Your task to perform on an android device: choose inbox layout in the gmail app Image 0: 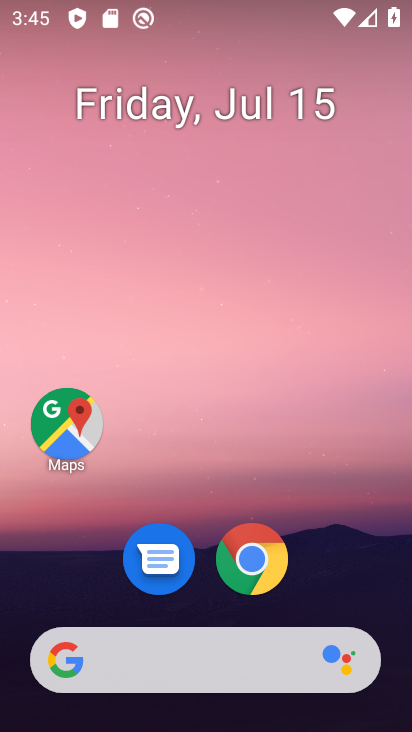
Step 0: click (202, 90)
Your task to perform on an android device: choose inbox layout in the gmail app Image 1: 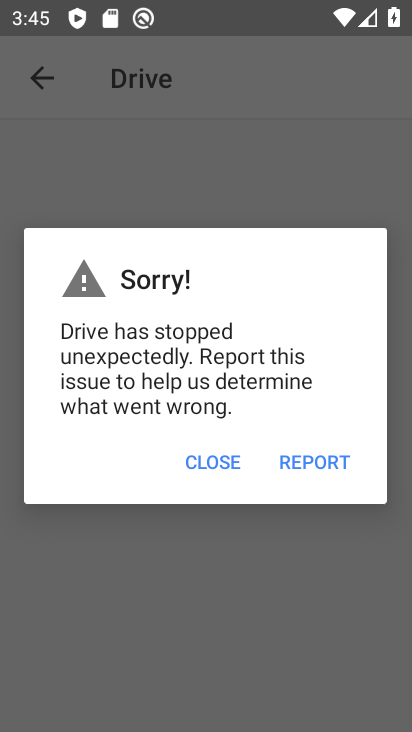
Step 1: click (210, 458)
Your task to perform on an android device: choose inbox layout in the gmail app Image 2: 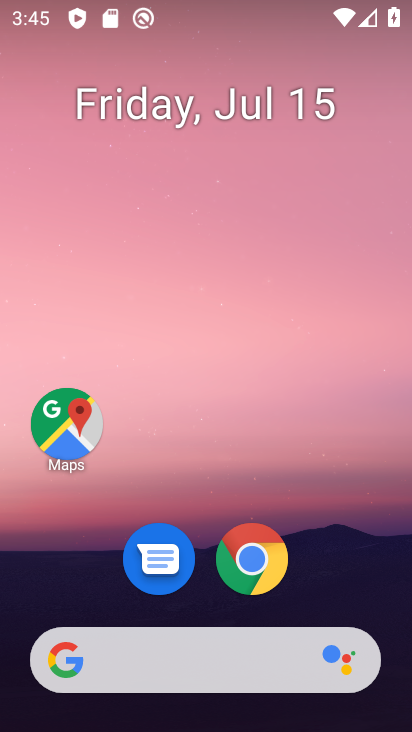
Step 2: drag from (91, 594) to (139, 52)
Your task to perform on an android device: choose inbox layout in the gmail app Image 3: 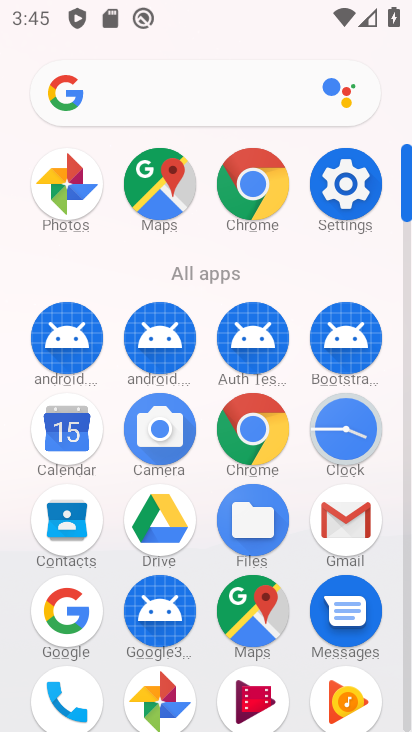
Step 3: click (334, 511)
Your task to perform on an android device: choose inbox layout in the gmail app Image 4: 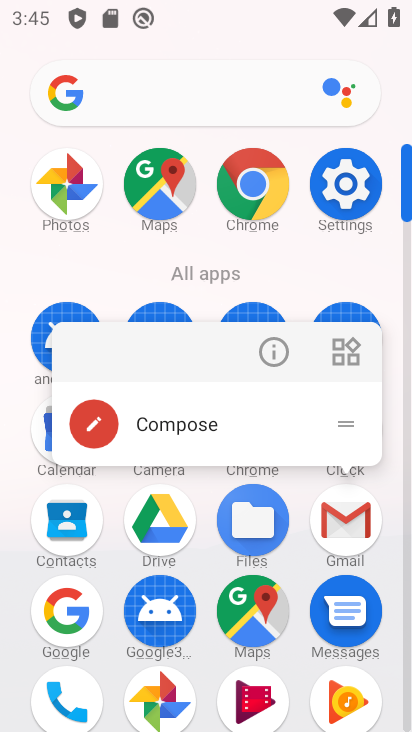
Step 4: click (334, 515)
Your task to perform on an android device: choose inbox layout in the gmail app Image 5: 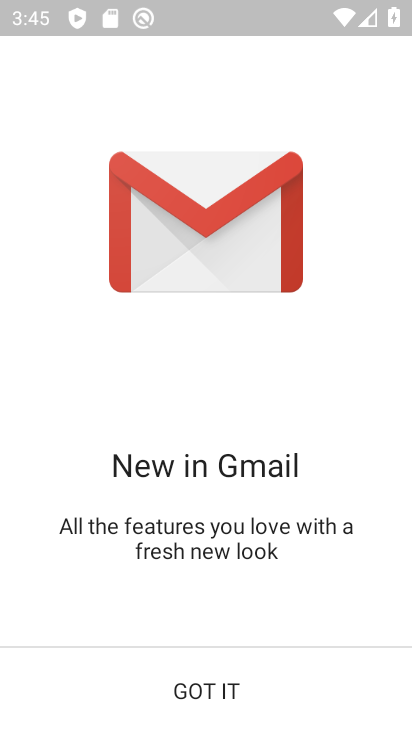
Step 5: click (209, 687)
Your task to perform on an android device: choose inbox layout in the gmail app Image 6: 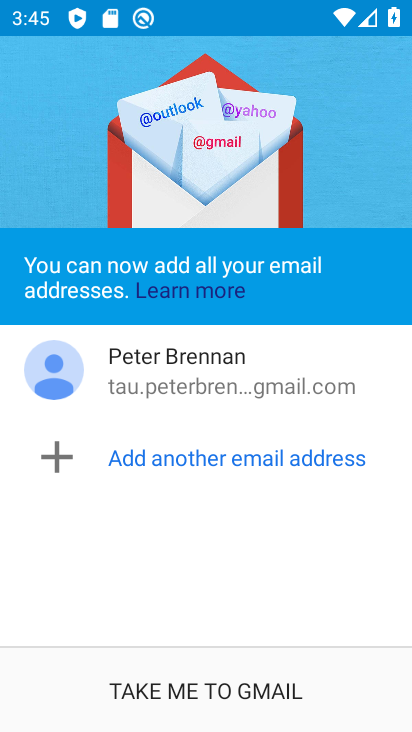
Step 6: click (161, 687)
Your task to perform on an android device: choose inbox layout in the gmail app Image 7: 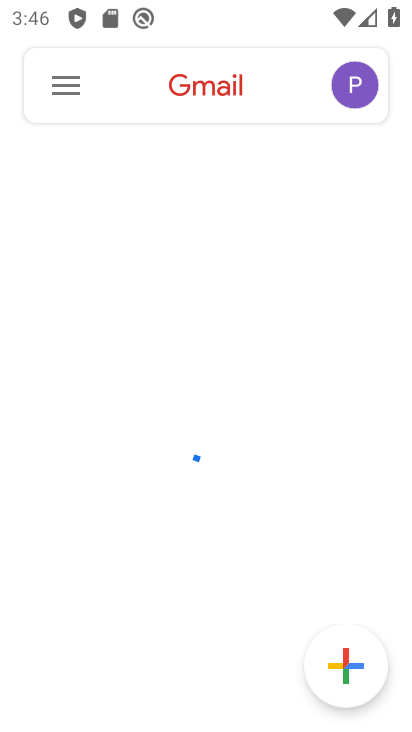
Step 7: click (53, 88)
Your task to perform on an android device: choose inbox layout in the gmail app Image 8: 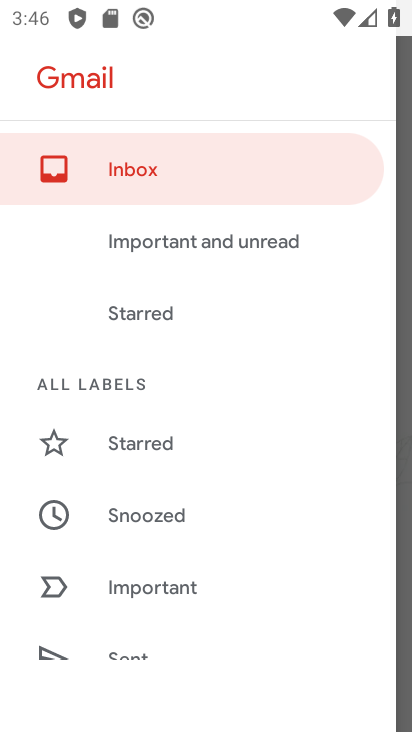
Step 8: drag from (161, 598) to (249, 61)
Your task to perform on an android device: choose inbox layout in the gmail app Image 9: 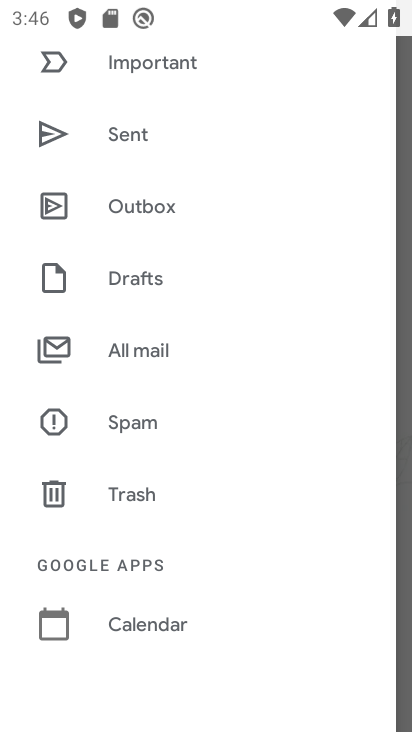
Step 9: drag from (201, 193) to (229, 385)
Your task to perform on an android device: choose inbox layout in the gmail app Image 10: 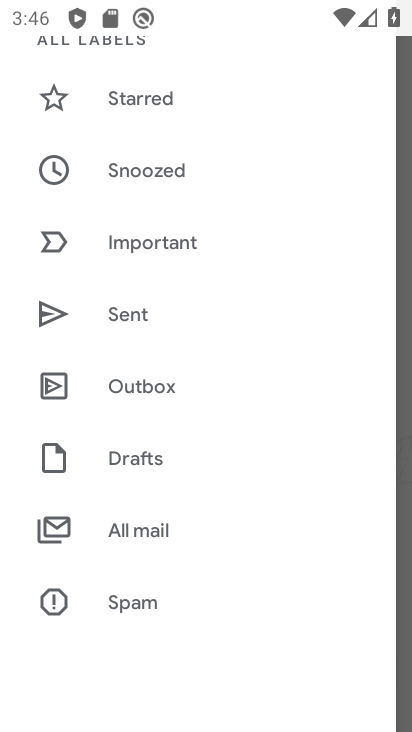
Step 10: click (158, 522)
Your task to perform on an android device: choose inbox layout in the gmail app Image 11: 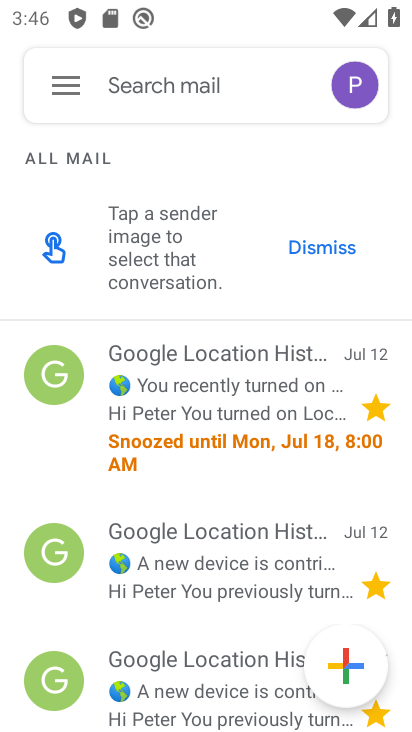
Step 11: click (55, 83)
Your task to perform on an android device: choose inbox layout in the gmail app Image 12: 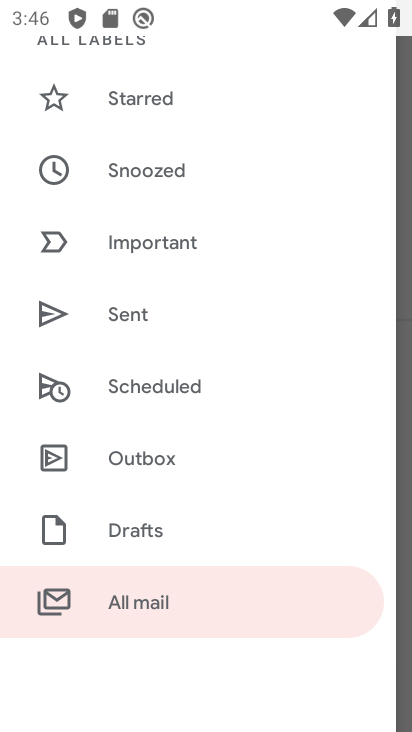
Step 12: drag from (155, 609) to (236, 6)
Your task to perform on an android device: choose inbox layout in the gmail app Image 13: 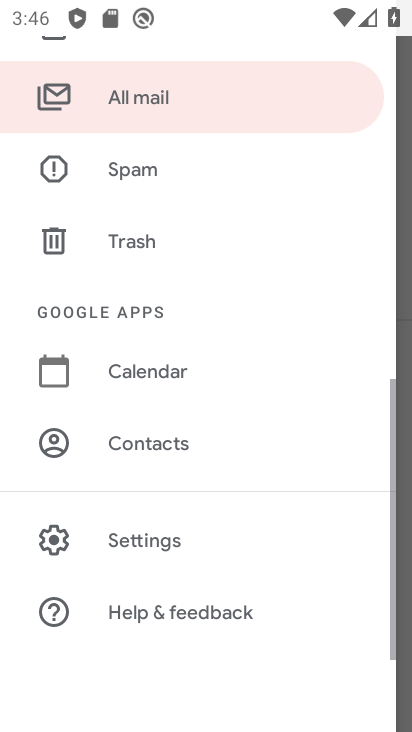
Step 13: click (137, 524)
Your task to perform on an android device: choose inbox layout in the gmail app Image 14: 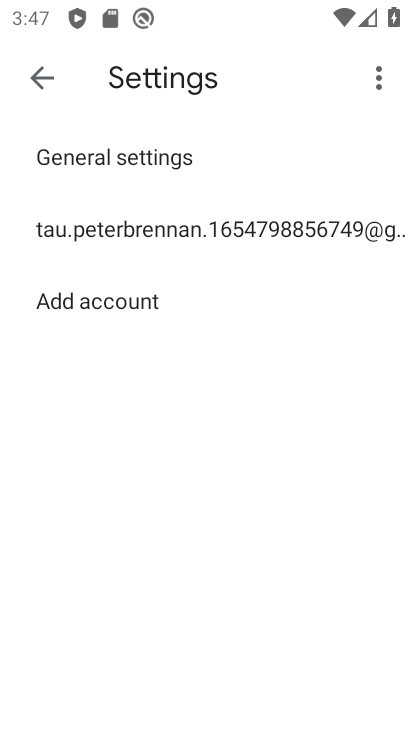
Step 14: click (154, 219)
Your task to perform on an android device: choose inbox layout in the gmail app Image 15: 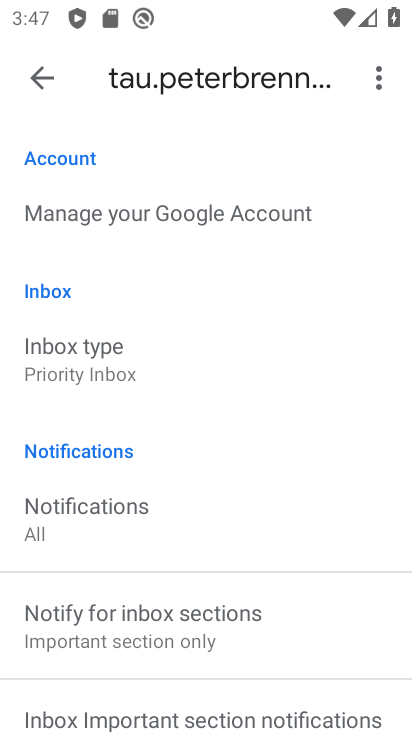
Step 15: click (100, 364)
Your task to perform on an android device: choose inbox layout in the gmail app Image 16: 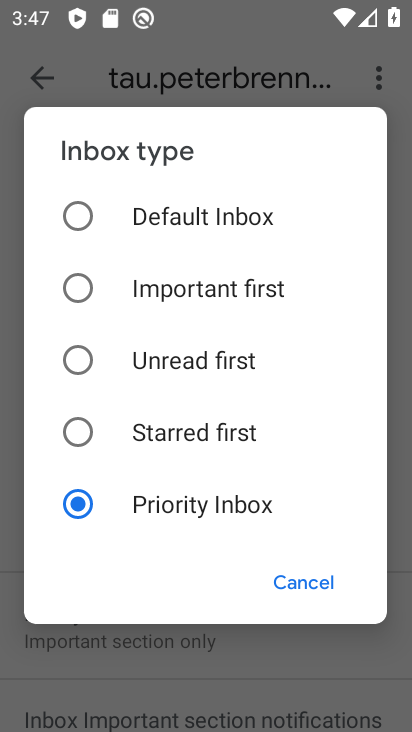
Step 16: click (88, 222)
Your task to perform on an android device: choose inbox layout in the gmail app Image 17: 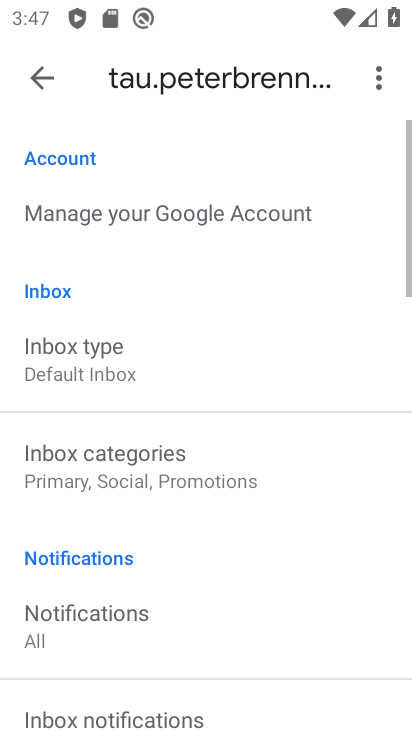
Step 17: task complete